Your task to perform on an android device: turn on bluetooth scan Image 0: 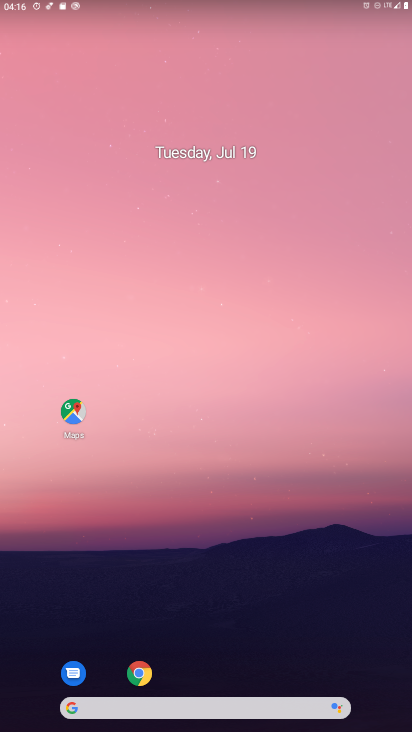
Step 0: drag from (217, 623) to (209, 11)
Your task to perform on an android device: turn on bluetooth scan Image 1: 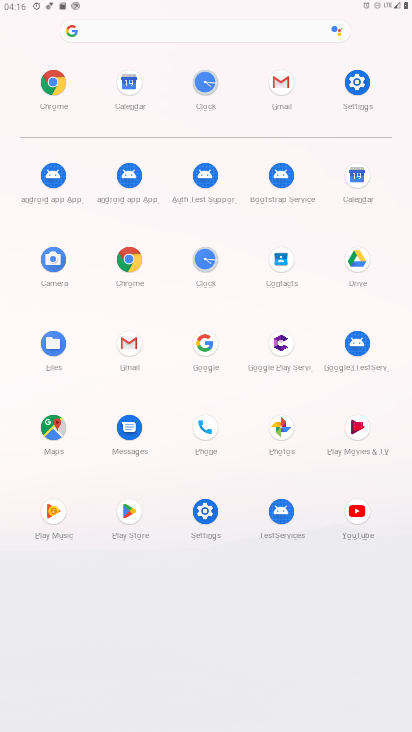
Step 1: click (198, 520)
Your task to perform on an android device: turn on bluetooth scan Image 2: 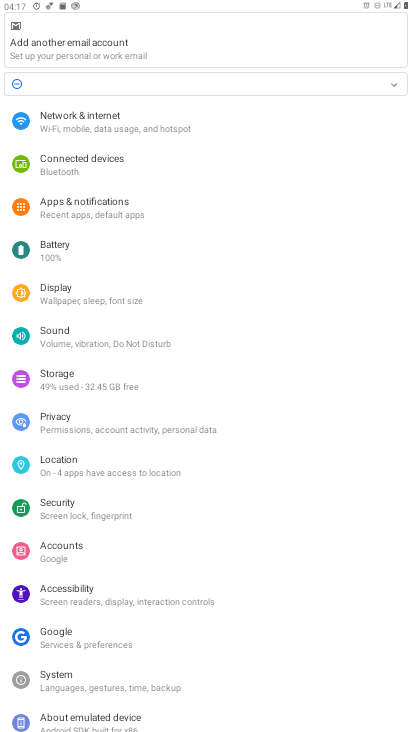
Step 2: click (86, 462)
Your task to perform on an android device: turn on bluetooth scan Image 3: 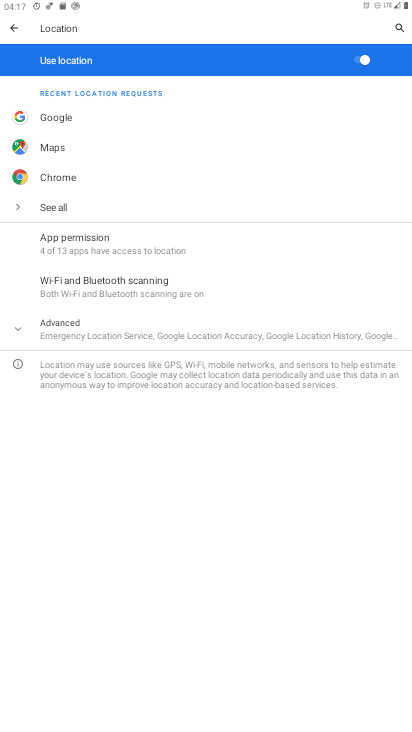
Step 3: click (117, 281)
Your task to perform on an android device: turn on bluetooth scan Image 4: 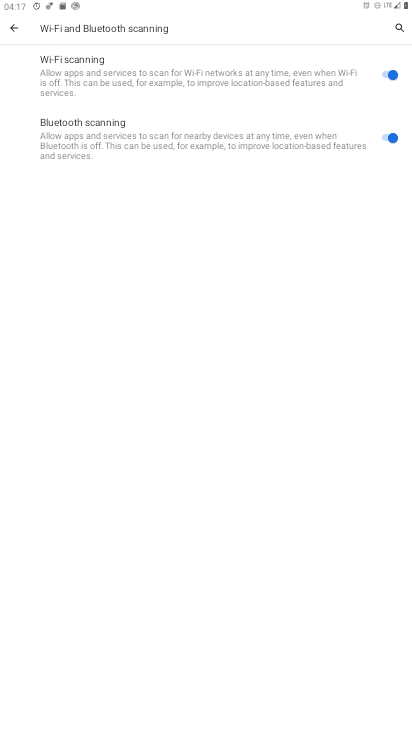
Step 4: task complete